Your task to perform on an android device: toggle data saver in the chrome app Image 0: 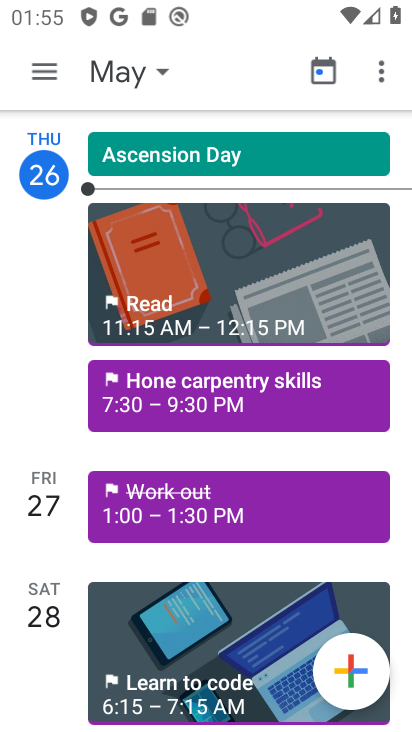
Step 0: press home button
Your task to perform on an android device: toggle data saver in the chrome app Image 1: 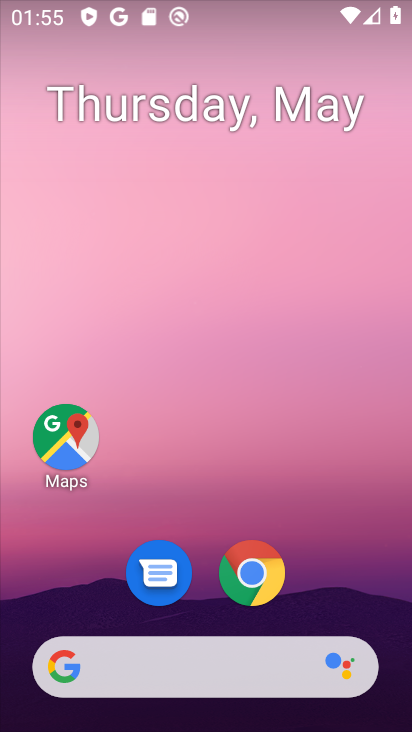
Step 1: click (238, 569)
Your task to perform on an android device: toggle data saver in the chrome app Image 2: 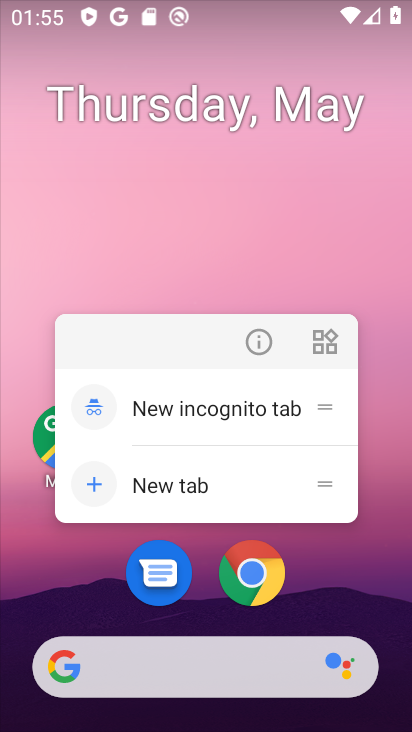
Step 2: click (240, 566)
Your task to perform on an android device: toggle data saver in the chrome app Image 3: 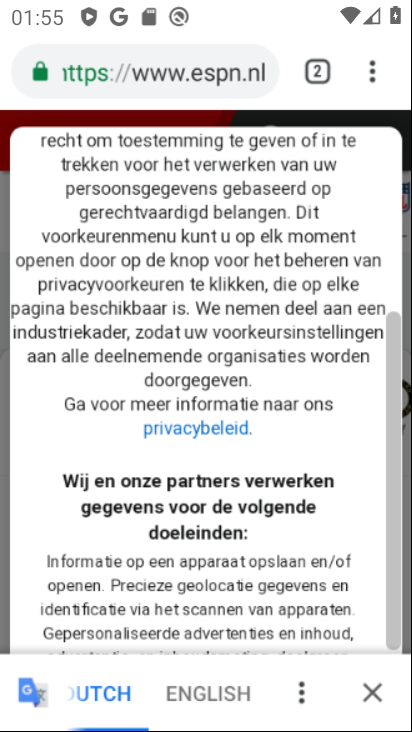
Step 3: click (370, 69)
Your task to perform on an android device: toggle data saver in the chrome app Image 4: 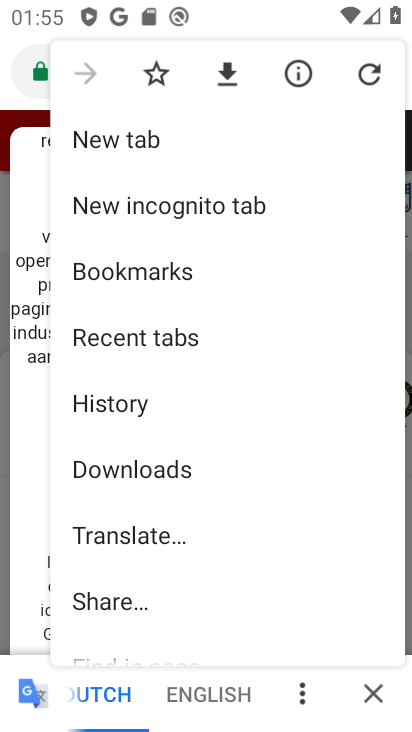
Step 4: drag from (150, 586) to (220, 348)
Your task to perform on an android device: toggle data saver in the chrome app Image 5: 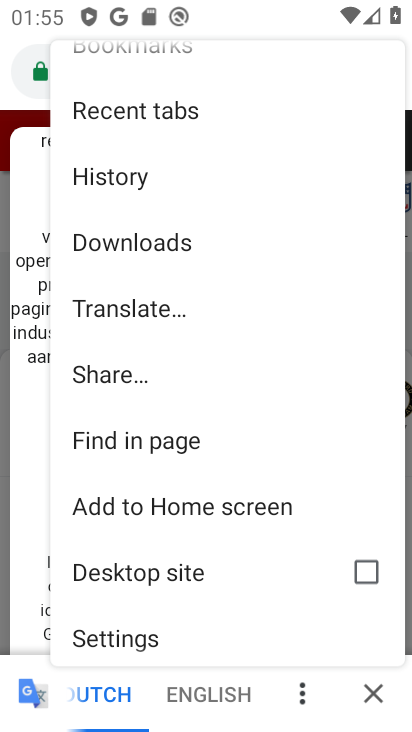
Step 5: click (137, 625)
Your task to perform on an android device: toggle data saver in the chrome app Image 6: 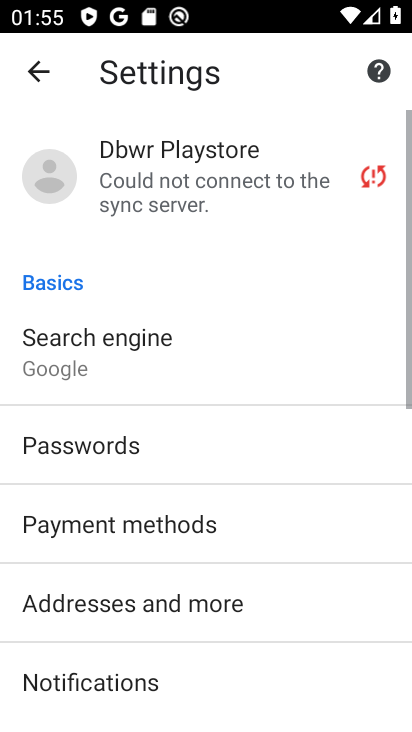
Step 6: drag from (191, 600) to (255, 293)
Your task to perform on an android device: toggle data saver in the chrome app Image 7: 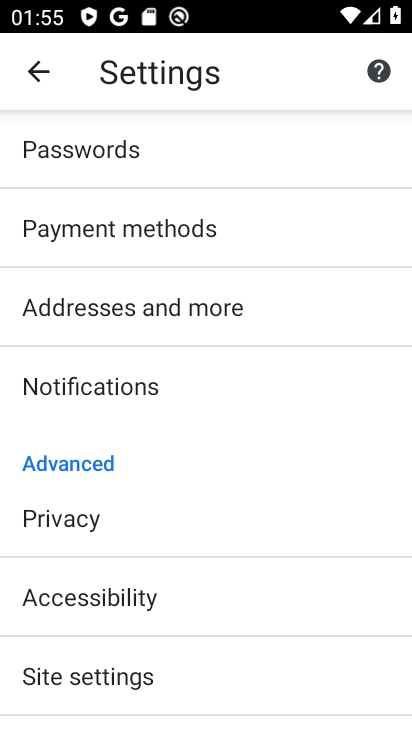
Step 7: drag from (156, 650) to (230, 419)
Your task to perform on an android device: toggle data saver in the chrome app Image 8: 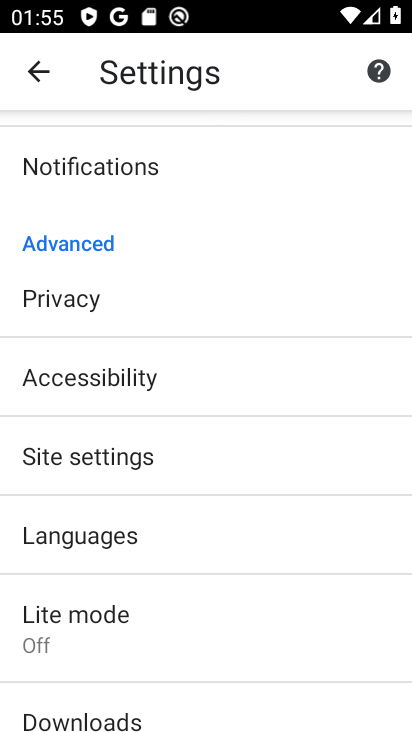
Step 8: click (109, 606)
Your task to perform on an android device: toggle data saver in the chrome app Image 9: 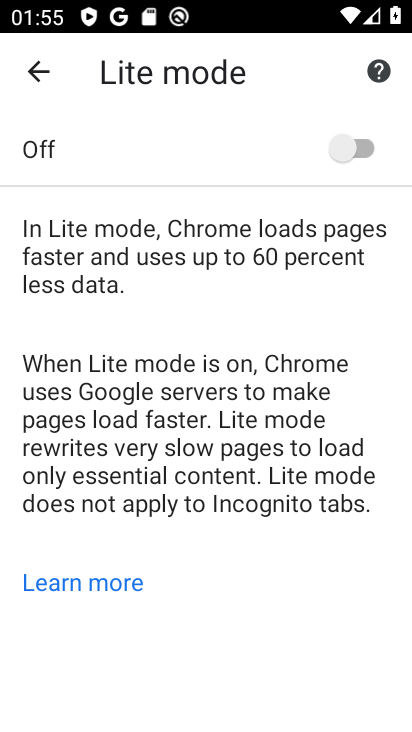
Step 9: click (352, 156)
Your task to perform on an android device: toggle data saver in the chrome app Image 10: 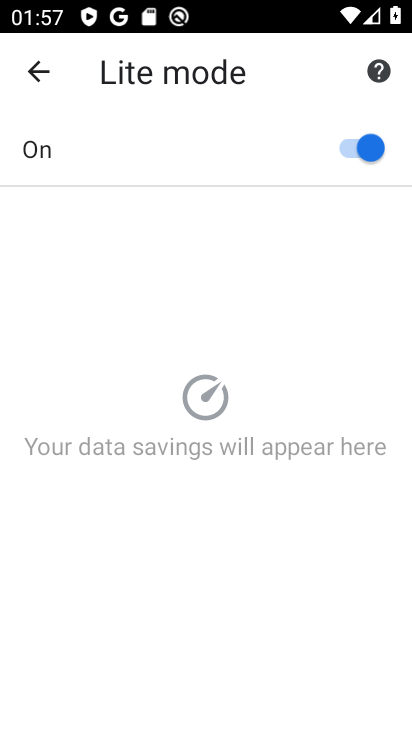
Step 10: task complete